Your task to perform on an android device: turn smart compose on in the gmail app Image 0: 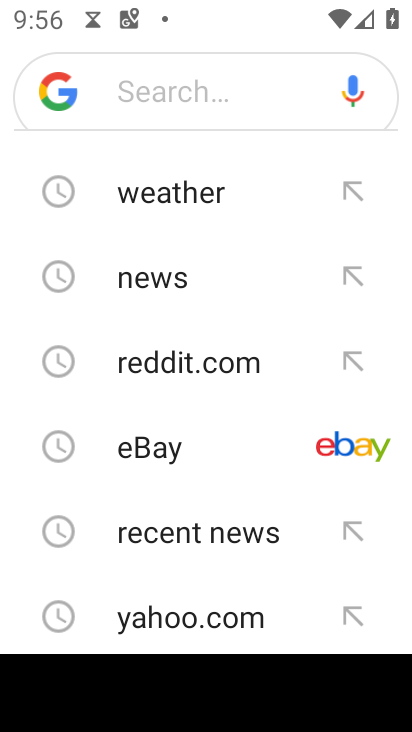
Step 0: press back button
Your task to perform on an android device: turn smart compose on in the gmail app Image 1: 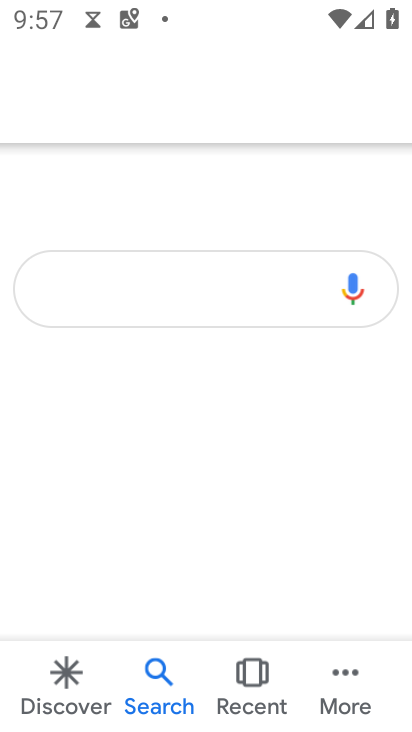
Step 1: press home button
Your task to perform on an android device: turn smart compose on in the gmail app Image 2: 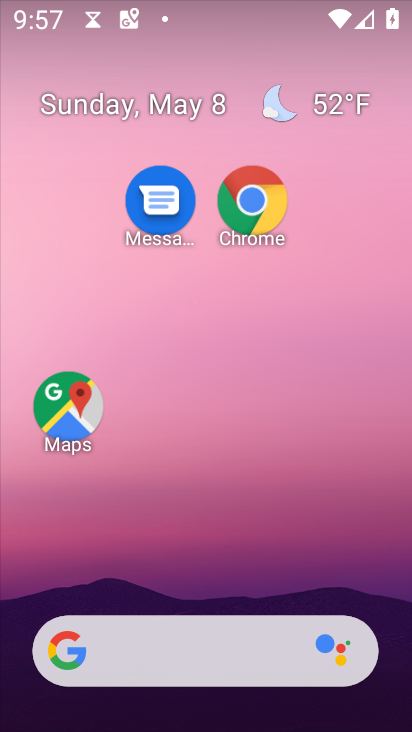
Step 2: drag from (198, 593) to (370, 20)
Your task to perform on an android device: turn smart compose on in the gmail app Image 3: 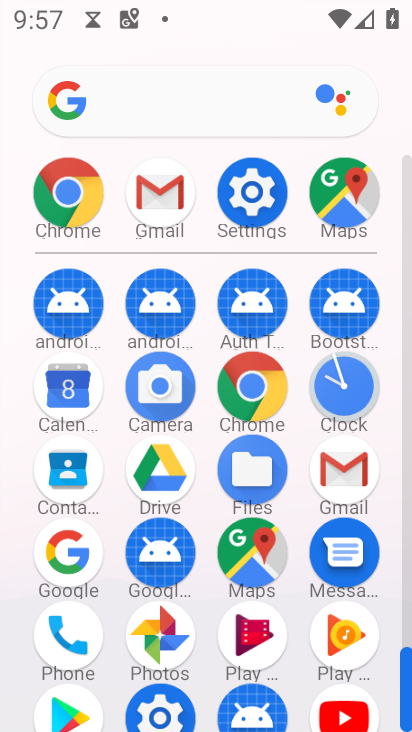
Step 3: click (328, 475)
Your task to perform on an android device: turn smart compose on in the gmail app Image 4: 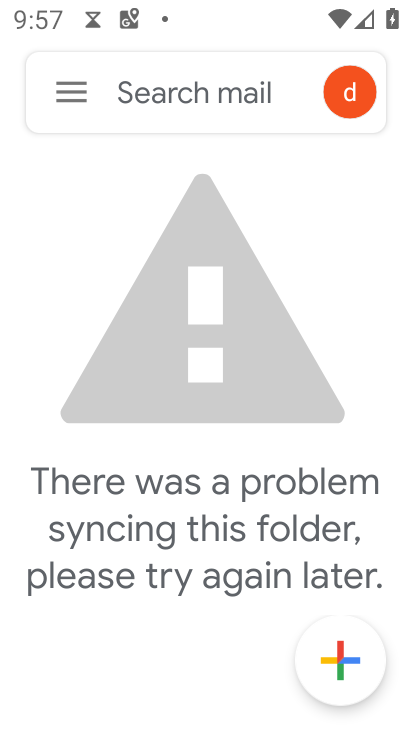
Step 4: click (56, 88)
Your task to perform on an android device: turn smart compose on in the gmail app Image 5: 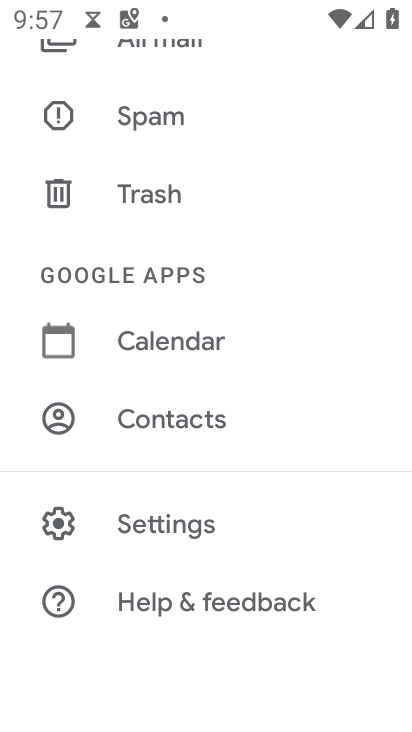
Step 5: click (154, 529)
Your task to perform on an android device: turn smart compose on in the gmail app Image 6: 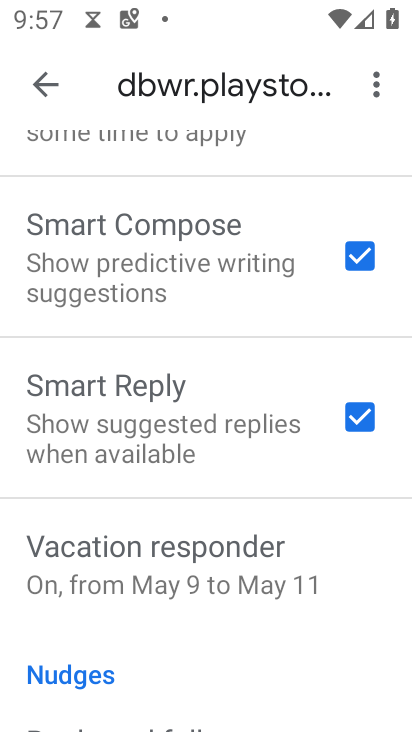
Step 6: task complete